Your task to perform on an android device: Show the shopping cart on walmart. Image 0: 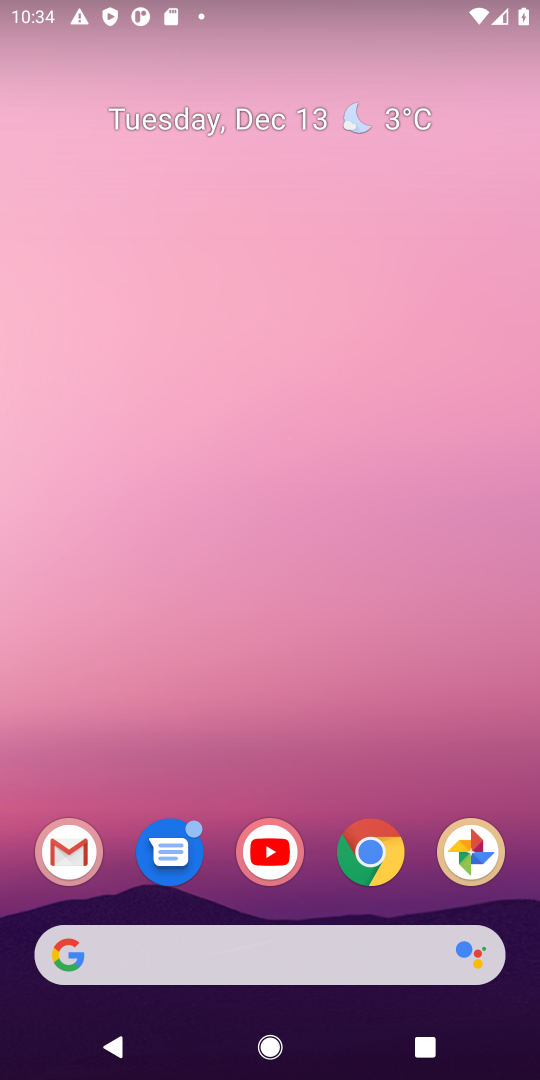
Step 0: press home button
Your task to perform on an android device: Show the shopping cart on walmart. Image 1: 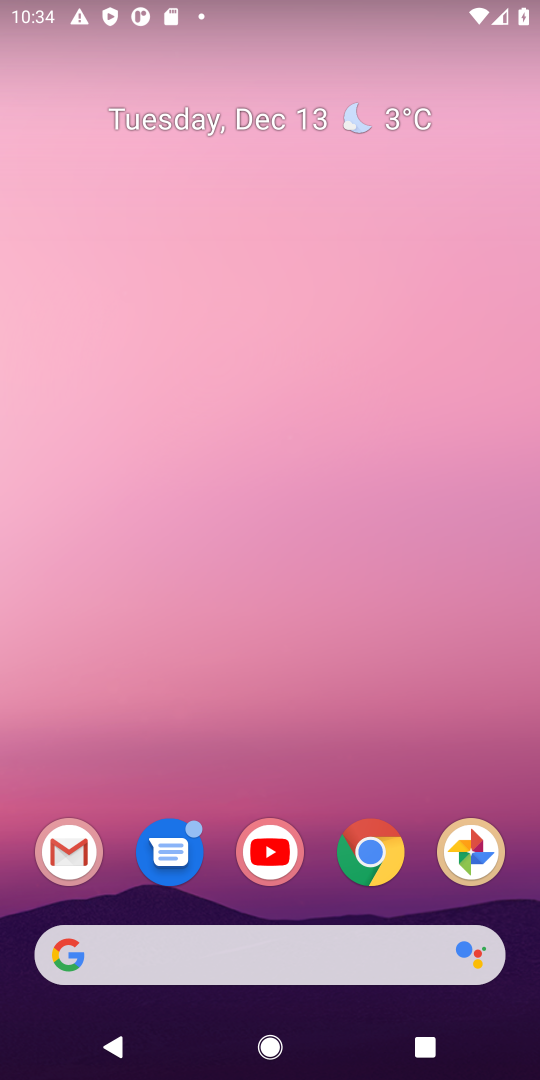
Step 1: click (99, 951)
Your task to perform on an android device: Show the shopping cart on walmart. Image 2: 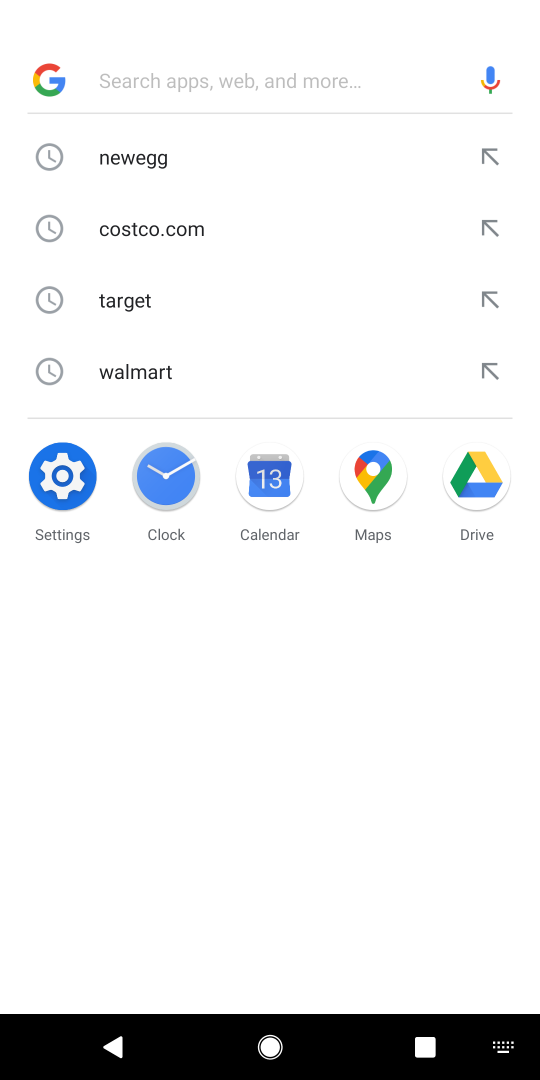
Step 2: type "walmart"
Your task to perform on an android device: Show the shopping cart on walmart. Image 3: 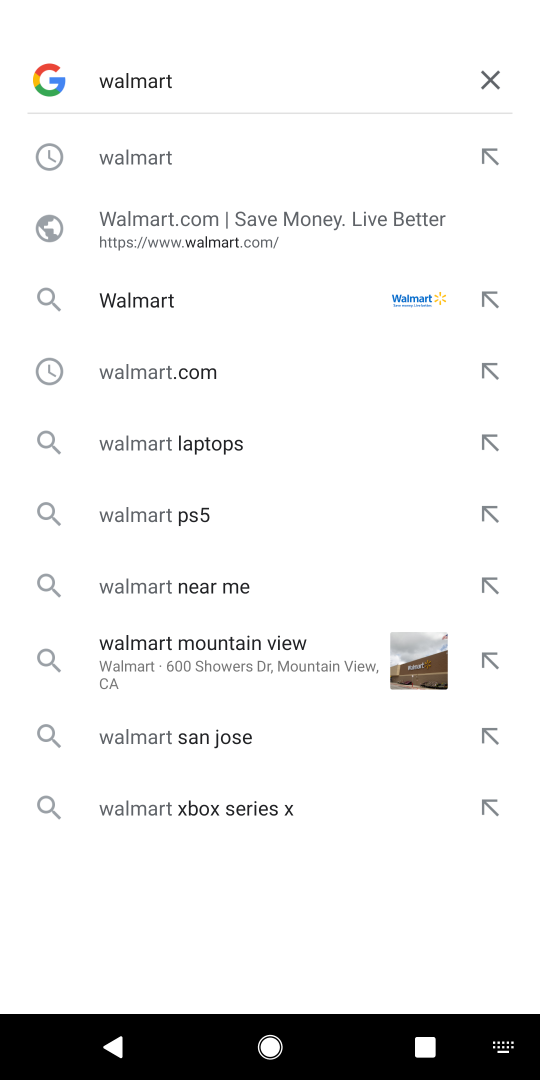
Step 3: press enter
Your task to perform on an android device: Show the shopping cart on walmart. Image 4: 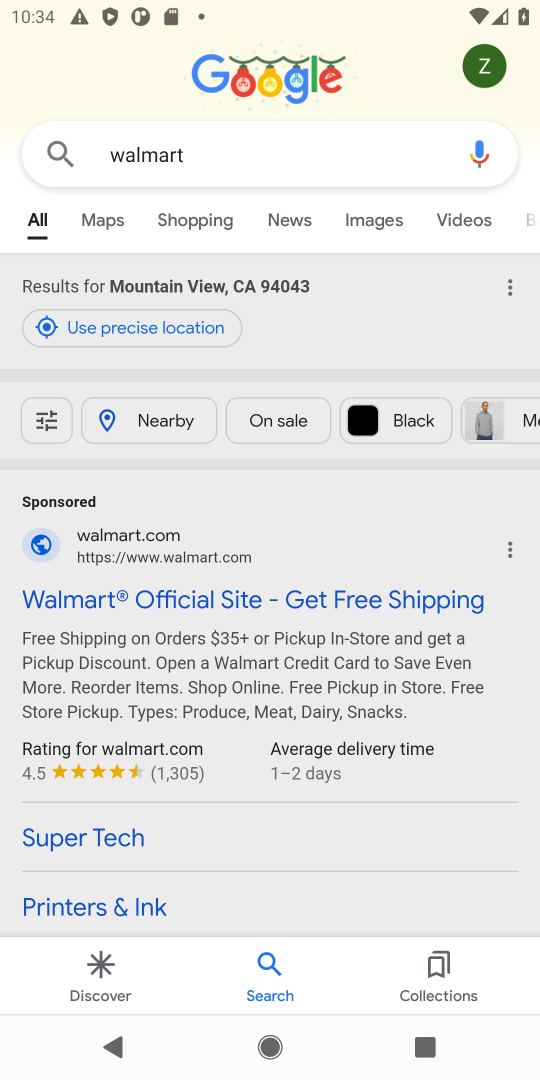
Step 4: click (238, 597)
Your task to perform on an android device: Show the shopping cart on walmart. Image 5: 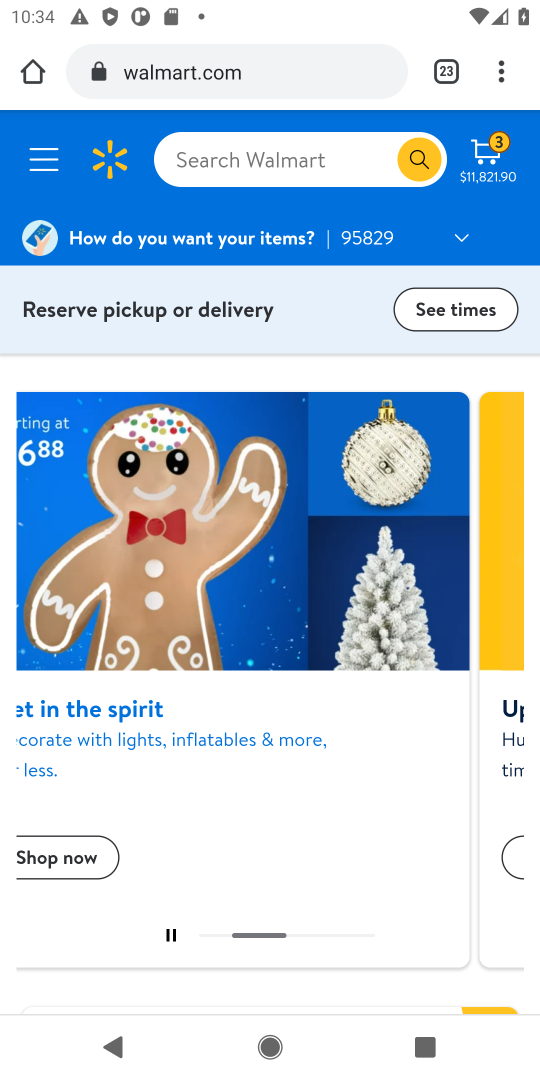
Step 5: click (481, 164)
Your task to perform on an android device: Show the shopping cart on walmart. Image 6: 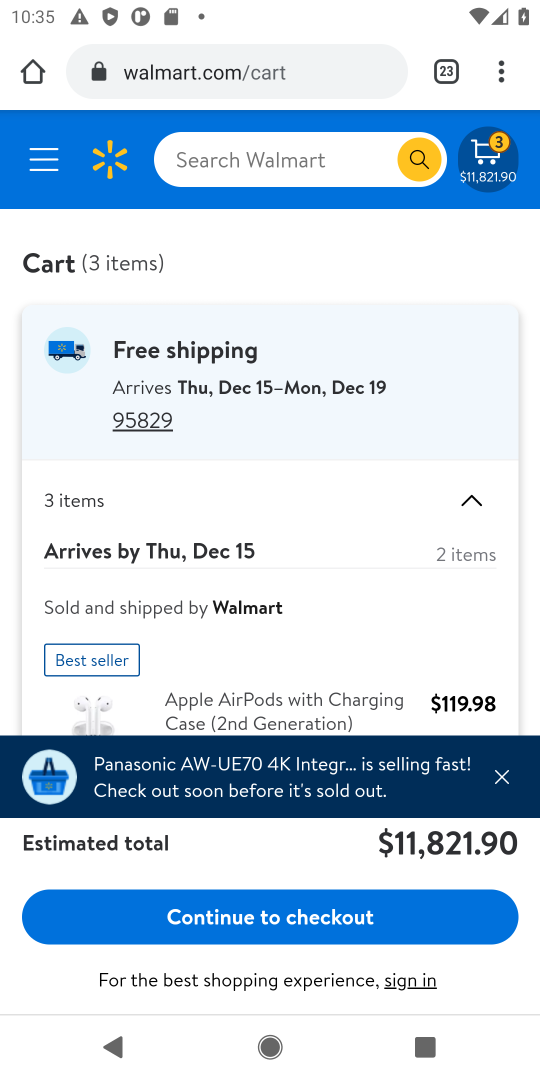
Step 6: task complete